Your task to perform on an android device: Open Maps and search for coffee Image 0: 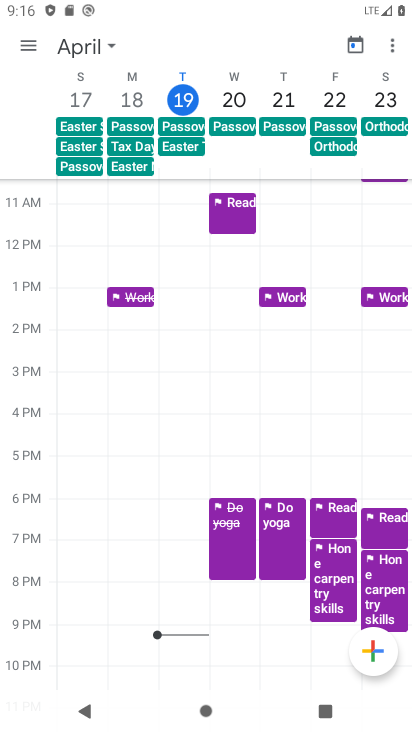
Step 0: press home button
Your task to perform on an android device: Open Maps and search for coffee Image 1: 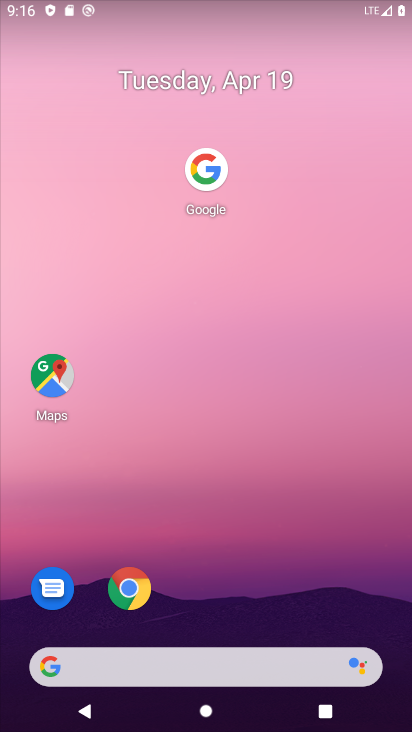
Step 1: click (50, 377)
Your task to perform on an android device: Open Maps and search for coffee Image 2: 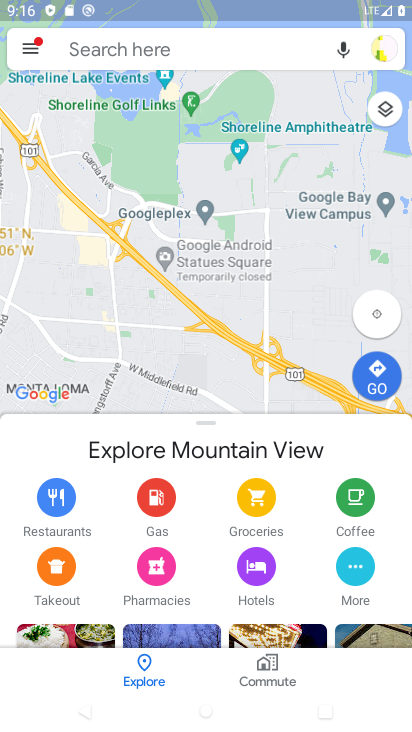
Step 2: click (176, 58)
Your task to perform on an android device: Open Maps and search for coffee Image 3: 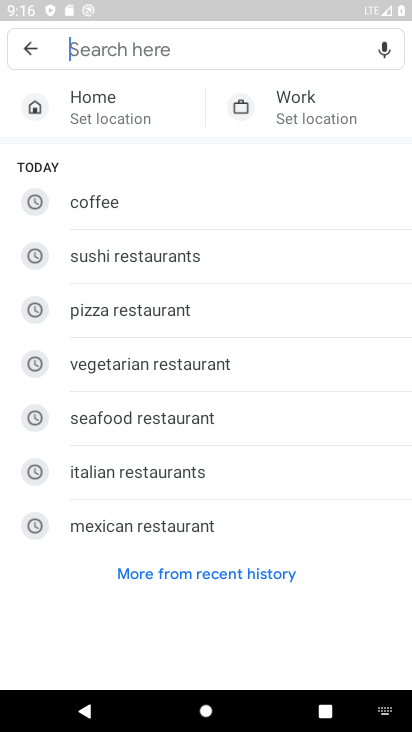
Step 3: click (85, 200)
Your task to perform on an android device: Open Maps and search for coffee Image 4: 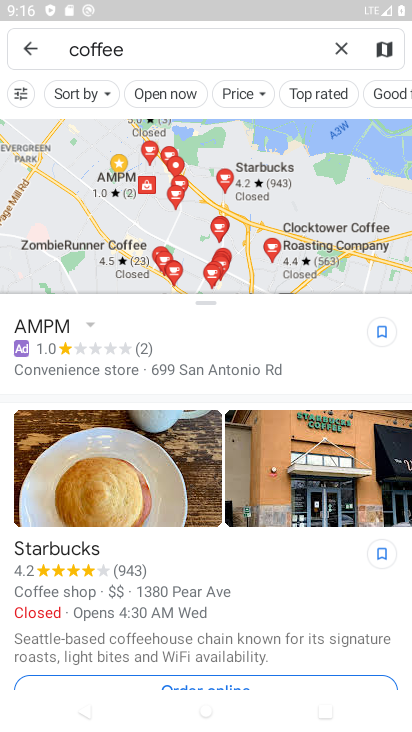
Step 4: task complete